Your task to perform on an android device: toggle show notifications on the lock screen Image 0: 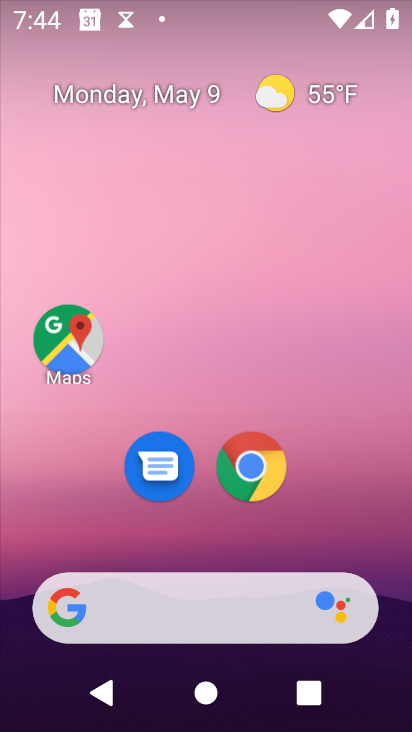
Step 0: drag from (336, 586) to (196, 102)
Your task to perform on an android device: toggle show notifications on the lock screen Image 1: 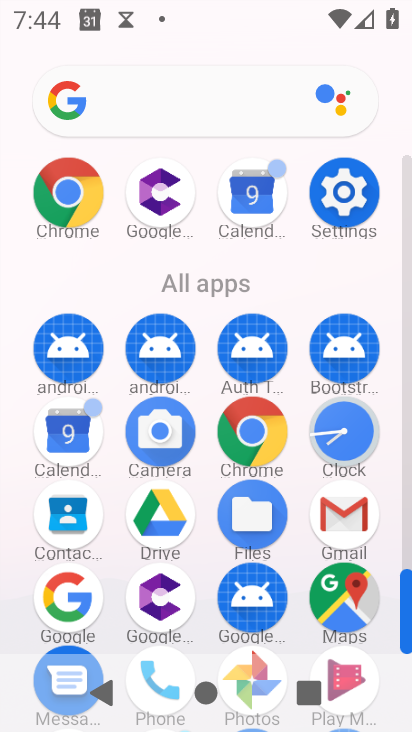
Step 1: click (338, 200)
Your task to perform on an android device: toggle show notifications on the lock screen Image 2: 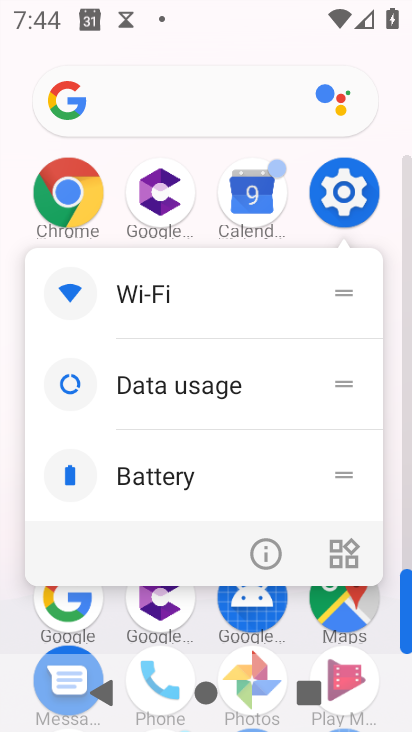
Step 2: click (338, 200)
Your task to perform on an android device: toggle show notifications on the lock screen Image 3: 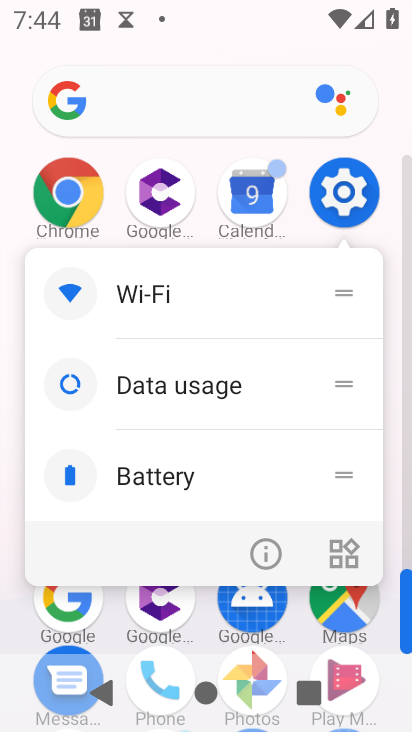
Step 3: click (350, 183)
Your task to perform on an android device: toggle show notifications on the lock screen Image 4: 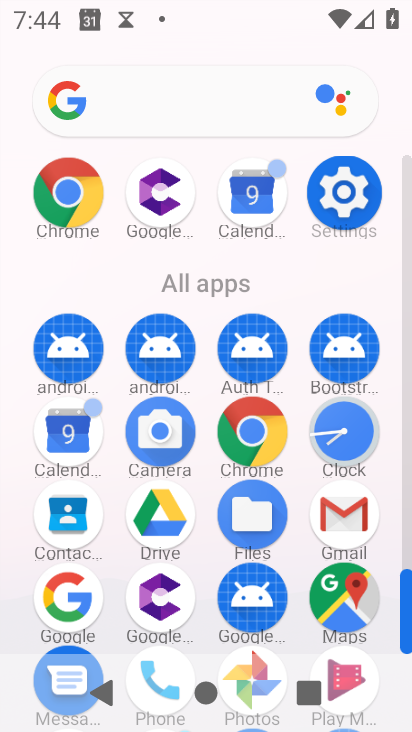
Step 4: click (350, 183)
Your task to perform on an android device: toggle show notifications on the lock screen Image 5: 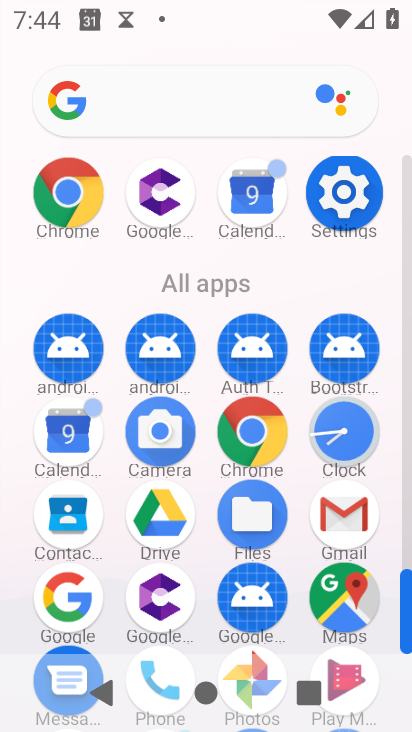
Step 5: click (350, 184)
Your task to perform on an android device: toggle show notifications on the lock screen Image 6: 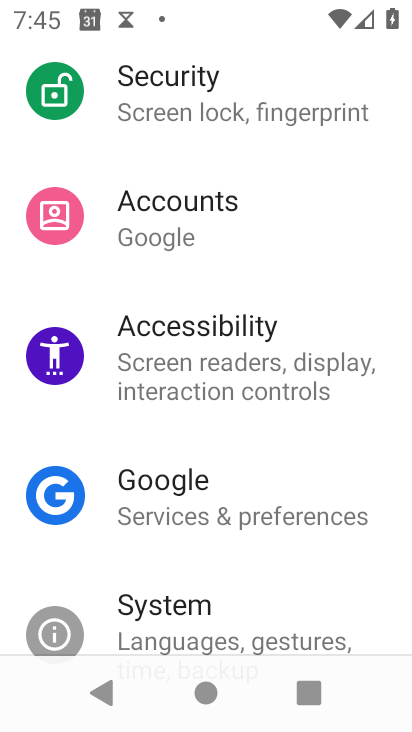
Step 6: drag from (245, 478) to (195, 107)
Your task to perform on an android device: toggle show notifications on the lock screen Image 7: 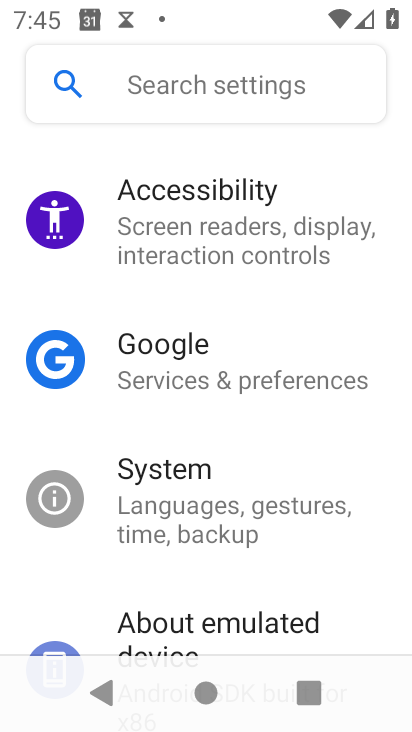
Step 7: click (192, 92)
Your task to perform on an android device: toggle show notifications on the lock screen Image 8: 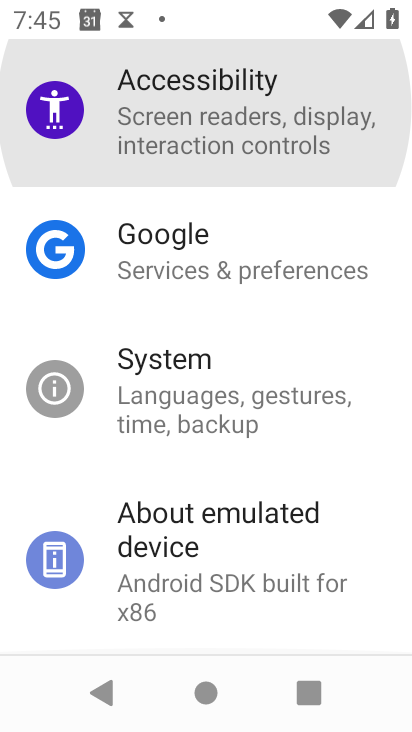
Step 8: click (220, 237)
Your task to perform on an android device: toggle show notifications on the lock screen Image 9: 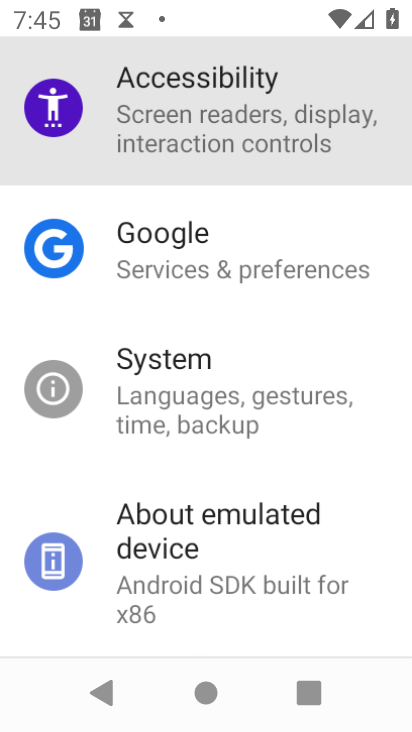
Step 9: drag from (273, 329) to (253, 489)
Your task to perform on an android device: toggle show notifications on the lock screen Image 10: 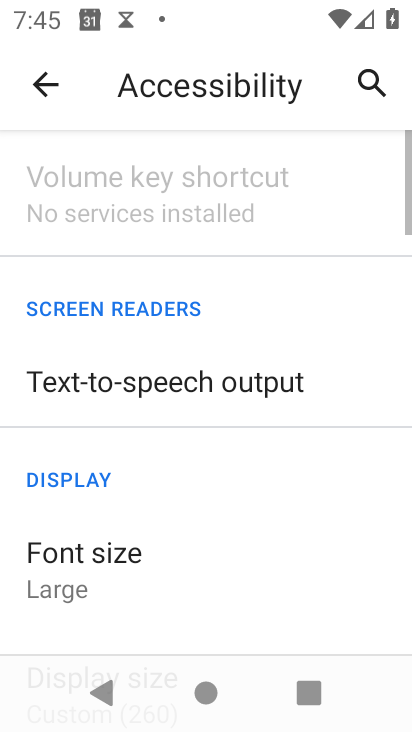
Step 10: click (278, 423)
Your task to perform on an android device: toggle show notifications on the lock screen Image 11: 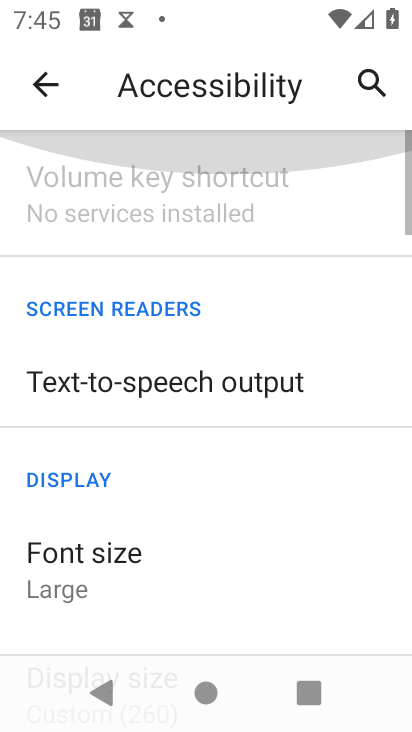
Step 11: press back button
Your task to perform on an android device: toggle show notifications on the lock screen Image 12: 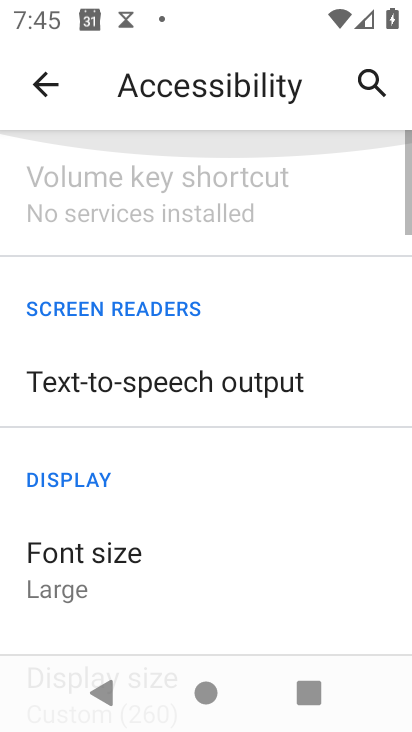
Step 12: press home button
Your task to perform on an android device: toggle show notifications on the lock screen Image 13: 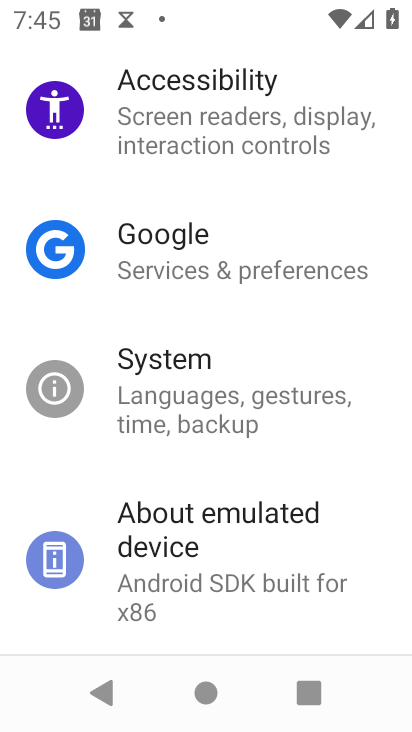
Step 13: click (38, 72)
Your task to perform on an android device: toggle show notifications on the lock screen Image 14: 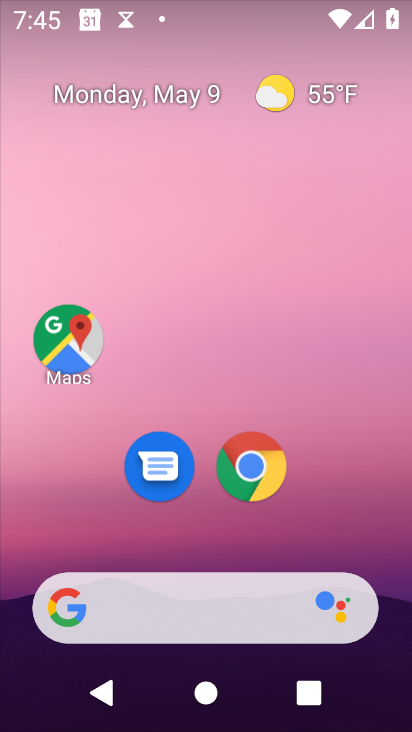
Step 14: drag from (352, 553) to (255, 146)
Your task to perform on an android device: toggle show notifications on the lock screen Image 15: 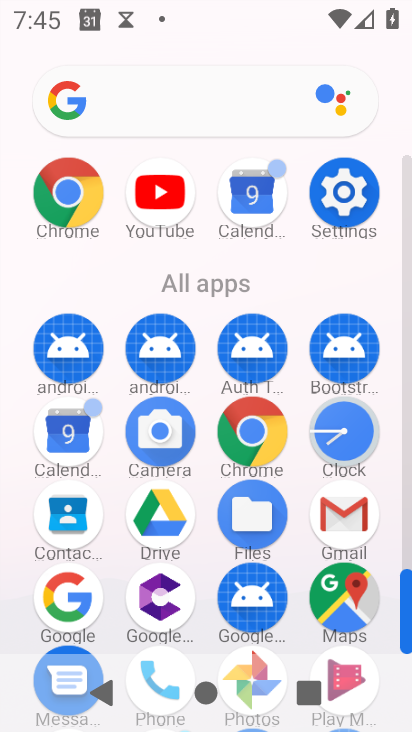
Step 15: click (342, 186)
Your task to perform on an android device: toggle show notifications on the lock screen Image 16: 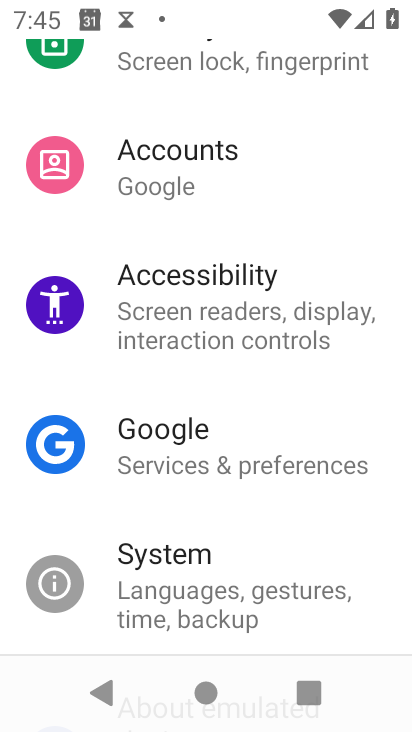
Step 16: drag from (180, 228) to (311, 539)
Your task to perform on an android device: toggle show notifications on the lock screen Image 17: 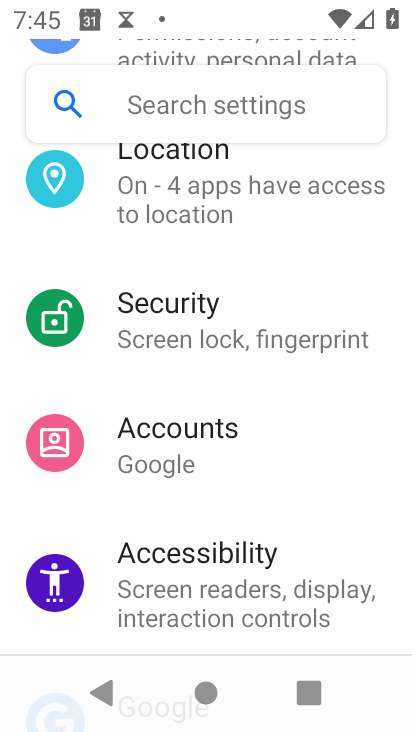
Step 17: drag from (212, 168) to (269, 546)
Your task to perform on an android device: toggle show notifications on the lock screen Image 18: 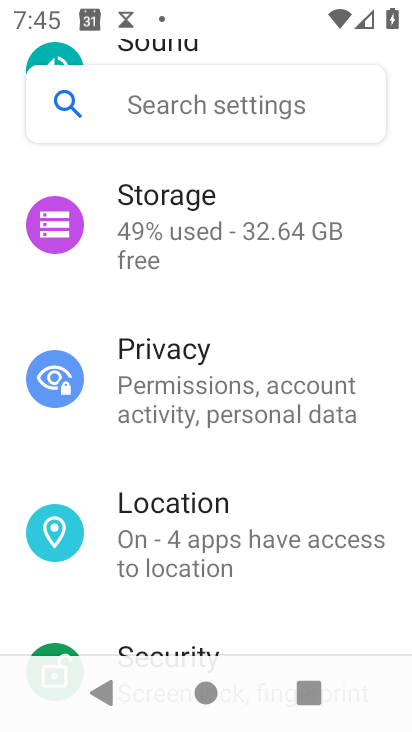
Step 18: drag from (224, 279) to (271, 601)
Your task to perform on an android device: toggle show notifications on the lock screen Image 19: 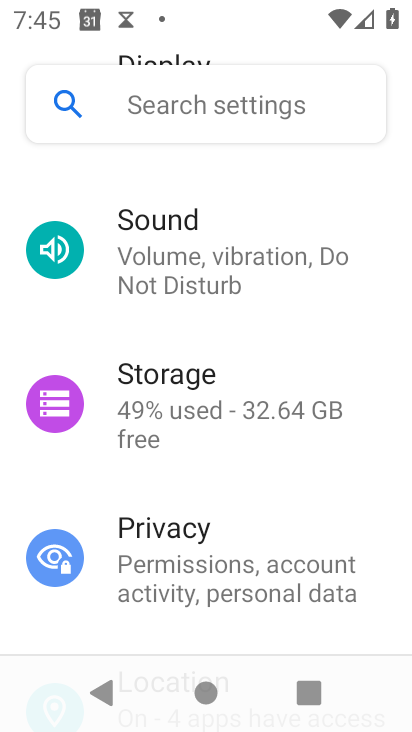
Step 19: drag from (188, 272) to (241, 617)
Your task to perform on an android device: toggle show notifications on the lock screen Image 20: 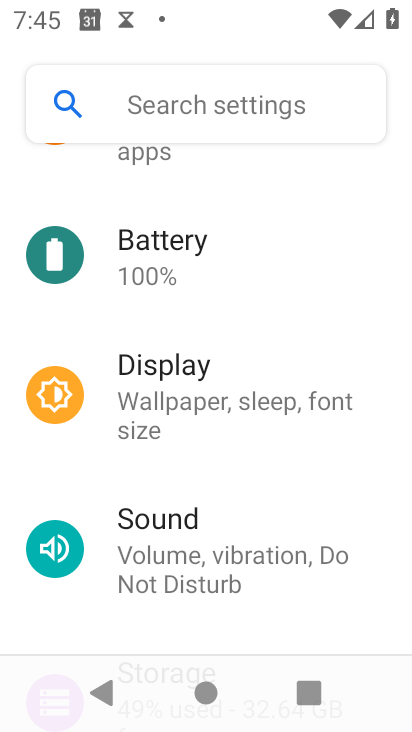
Step 20: drag from (254, 428) to (275, 588)
Your task to perform on an android device: toggle show notifications on the lock screen Image 21: 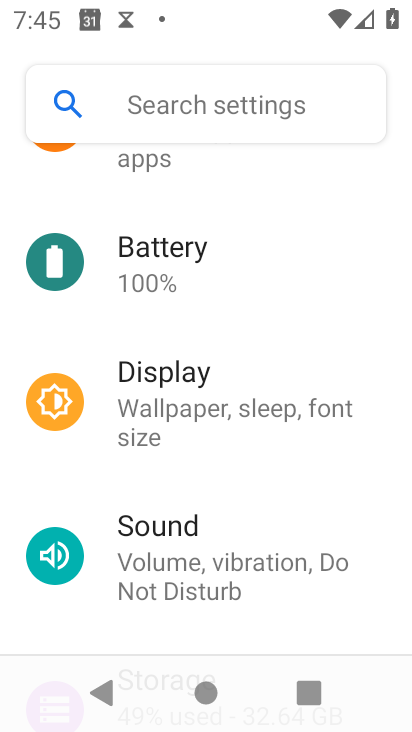
Step 21: drag from (231, 270) to (282, 553)
Your task to perform on an android device: toggle show notifications on the lock screen Image 22: 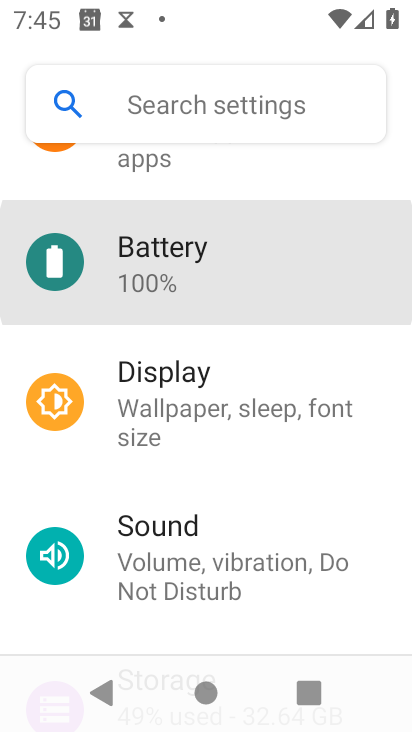
Step 22: drag from (266, 230) to (277, 464)
Your task to perform on an android device: toggle show notifications on the lock screen Image 23: 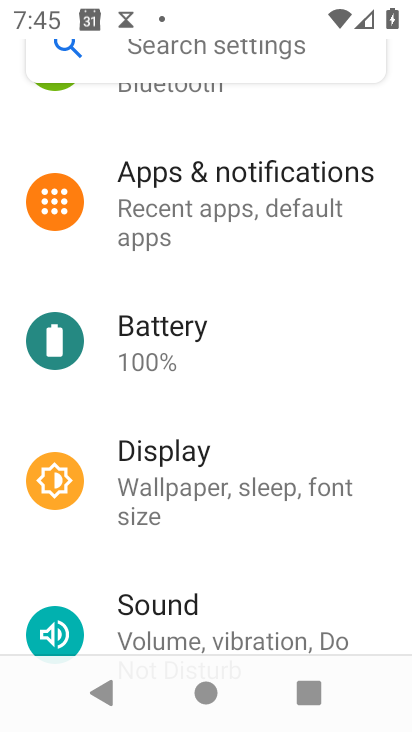
Step 23: click (239, 503)
Your task to perform on an android device: toggle show notifications on the lock screen Image 24: 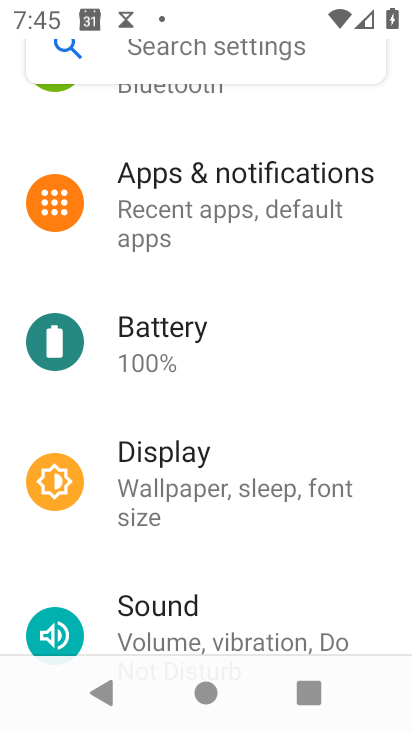
Step 24: click (231, 200)
Your task to perform on an android device: toggle show notifications on the lock screen Image 25: 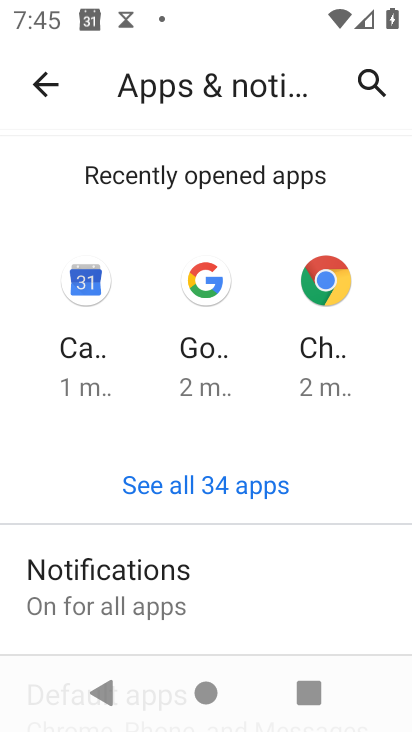
Step 25: drag from (166, 592) to (91, 105)
Your task to perform on an android device: toggle show notifications on the lock screen Image 26: 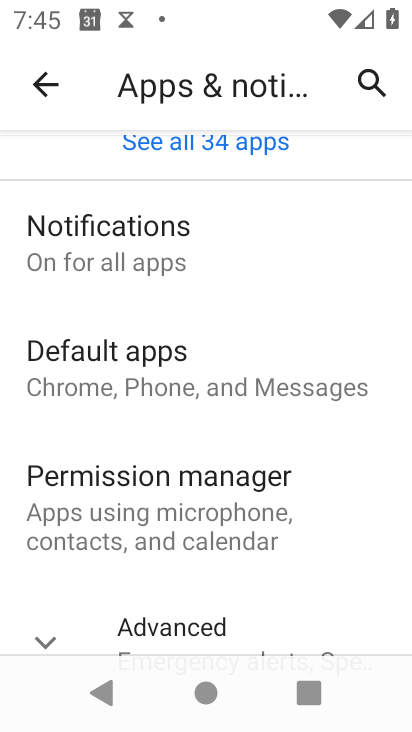
Step 26: click (141, 243)
Your task to perform on an android device: toggle show notifications on the lock screen Image 27: 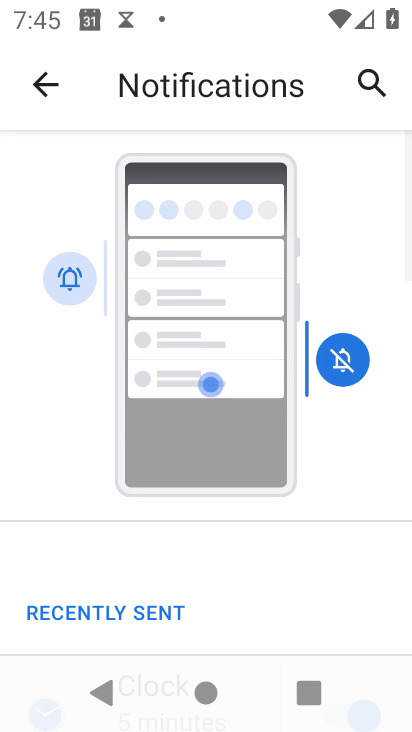
Step 27: drag from (200, 501) to (178, 49)
Your task to perform on an android device: toggle show notifications on the lock screen Image 28: 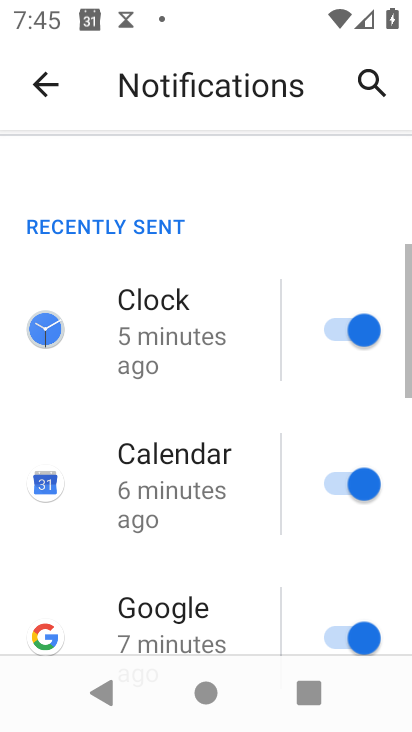
Step 28: drag from (207, 214) to (210, 43)
Your task to perform on an android device: toggle show notifications on the lock screen Image 29: 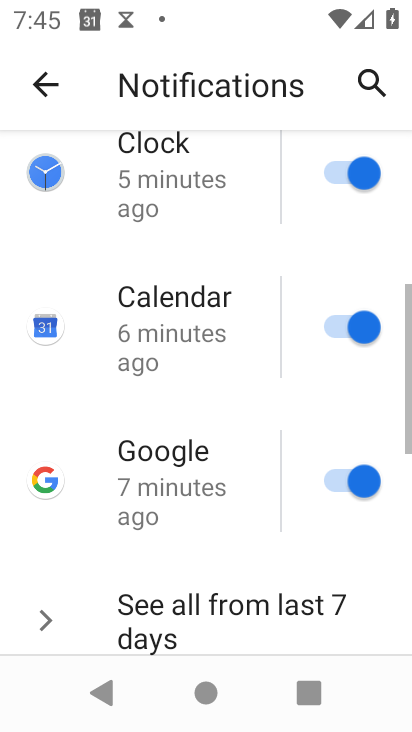
Step 29: drag from (229, 375) to (241, 1)
Your task to perform on an android device: toggle show notifications on the lock screen Image 30: 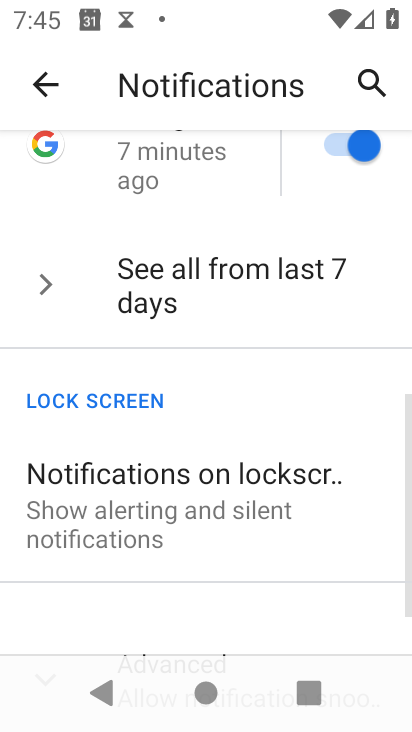
Step 30: drag from (228, 373) to (198, 146)
Your task to perform on an android device: toggle show notifications on the lock screen Image 31: 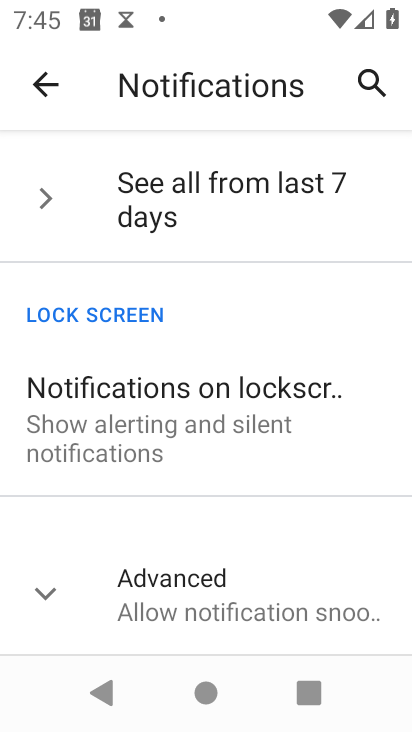
Step 31: click (184, 416)
Your task to perform on an android device: toggle show notifications on the lock screen Image 32: 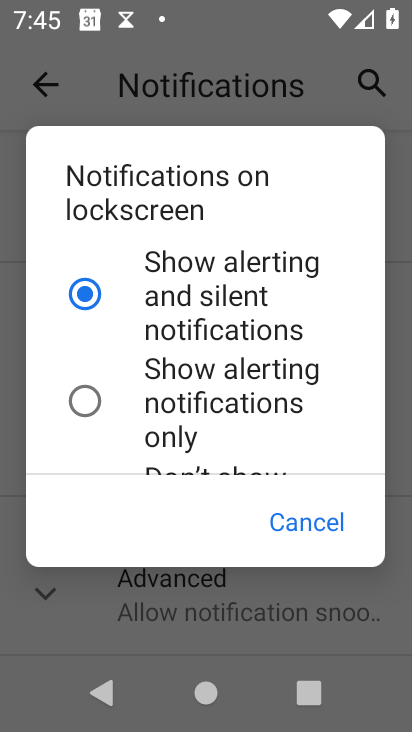
Step 32: task complete